Your task to perform on an android device: turn on improve location accuracy Image 0: 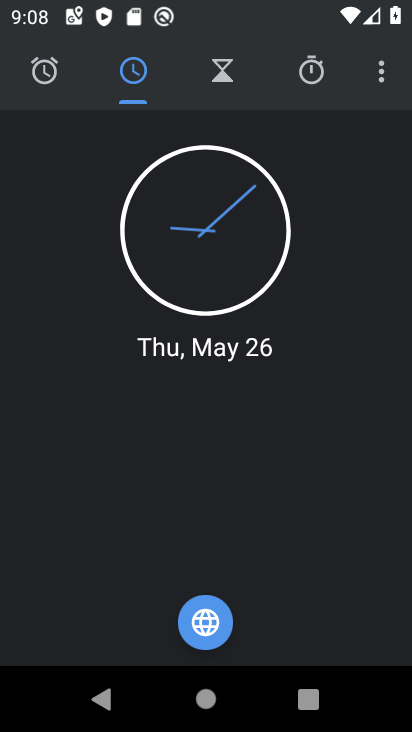
Step 0: drag from (286, 645) to (239, 104)
Your task to perform on an android device: turn on improve location accuracy Image 1: 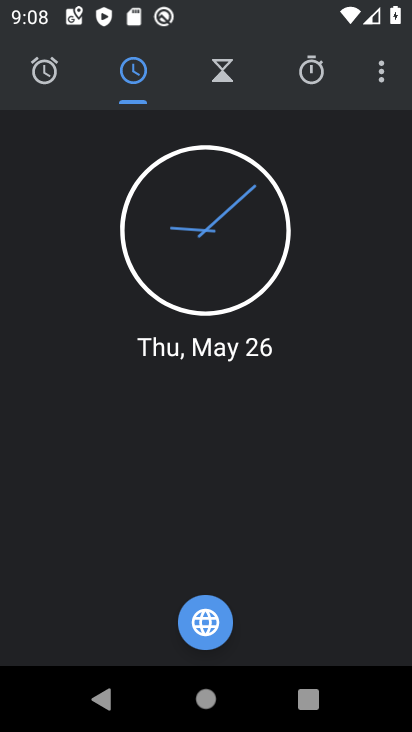
Step 1: press home button
Your task to perform on an android device: turn on improve location accuracy Image 2: 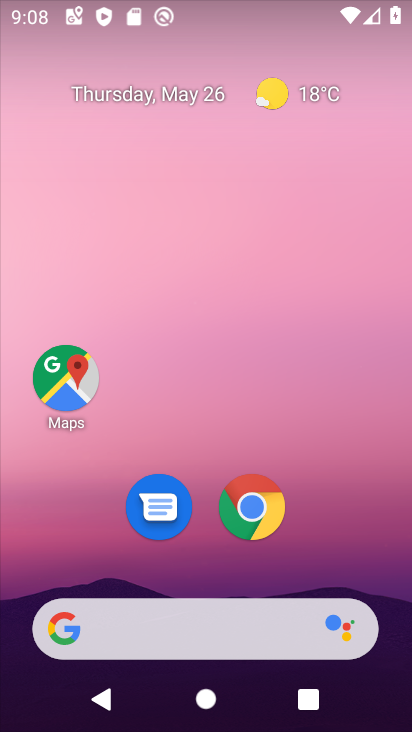
Step 2: drag from (248, 599) to (227, 170)
Your task to perform on an android device: turn on improve location accuracy Image 3: 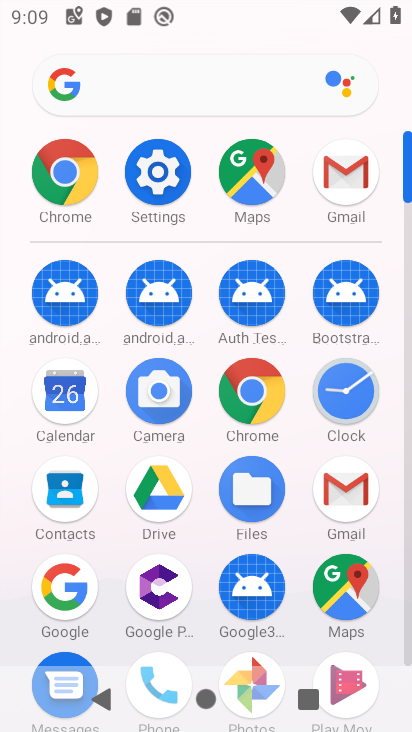
Step 3: click (154, 187)
Your task to perform on an android device: turn on improve location accuracy Image 4: 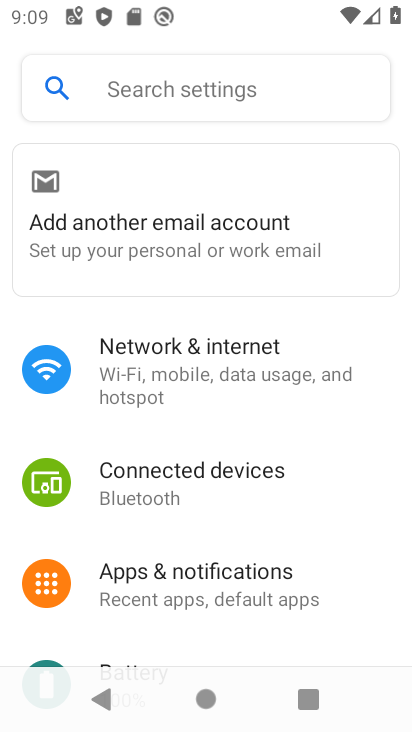
Step 4: click (217, 96)
Your task to perform on an android device: turn on improve location accuracy Image 5: 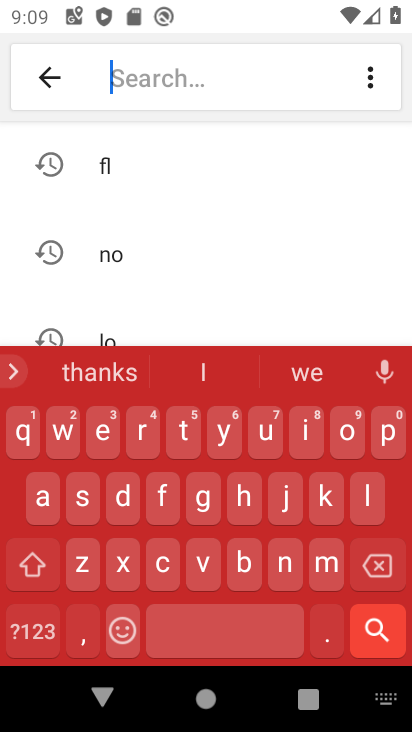
Step 5: click (370, 503)
Your task to perform on an android device: turn on improve location accuracy Image 6: 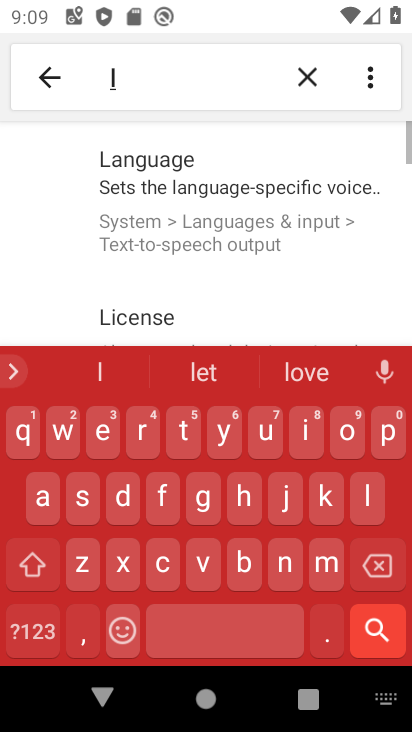
Step 6: click (343, 434)
Your task to perform on an android device: turn on improve location accuracy Image 7: 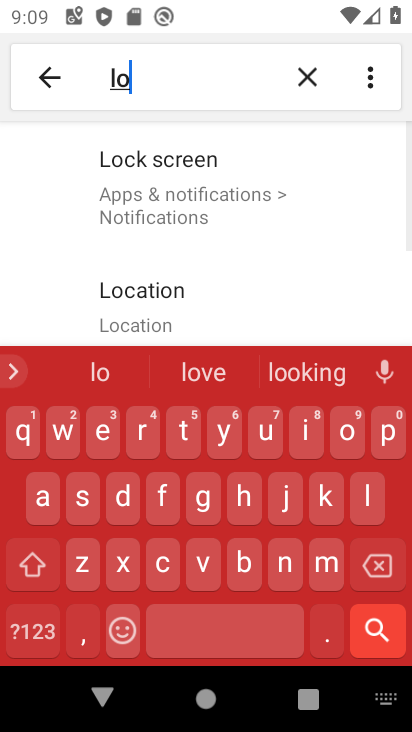
Step 7: click (156, 311)
Your task to perform on an android device: turn on improve location accuracy Image 8: 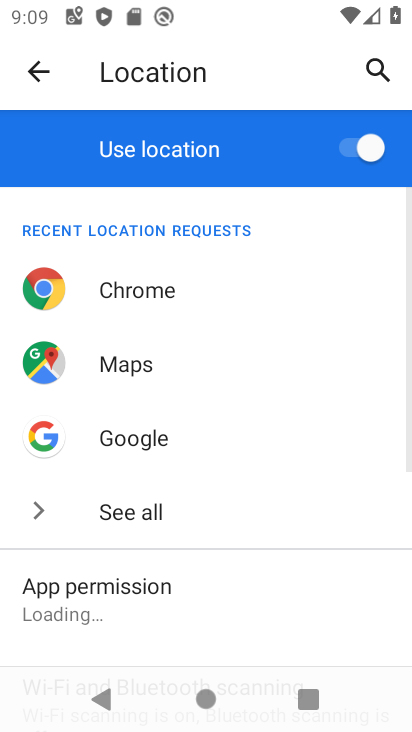
Step 8: drag from (233, 565) to (213, 270)
Your task to perform on an android device: turn on improve location accuracy Image 9: 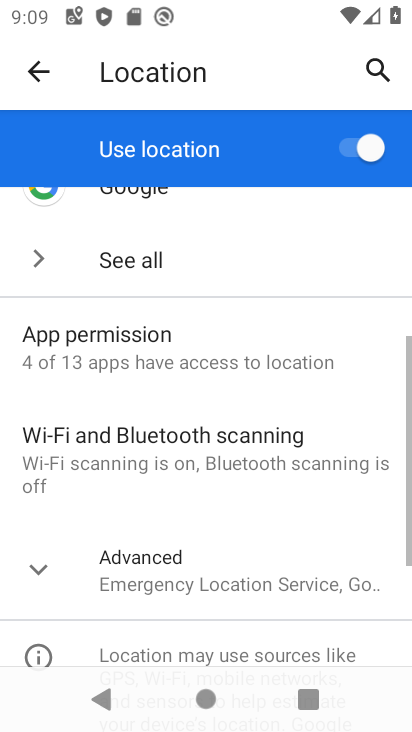
Step 9: click (129, 568)
Your task to perform on an android device: turn on improve location accuracy Image 10: 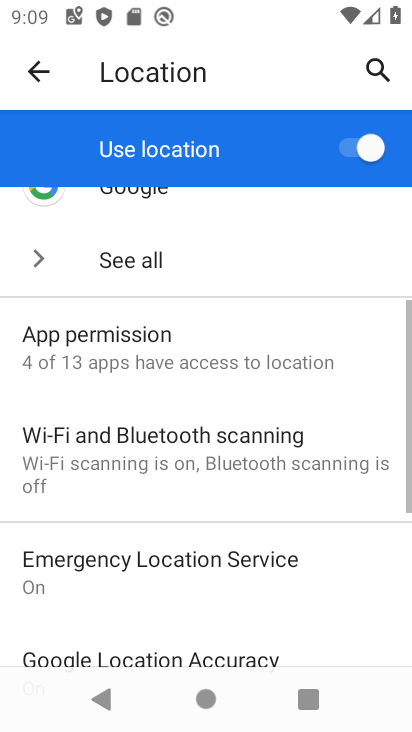
Step 10: drag from (229, 574) to (199, 457)
Your task to perform on an android device: turn on improve location accuracy Image 11: 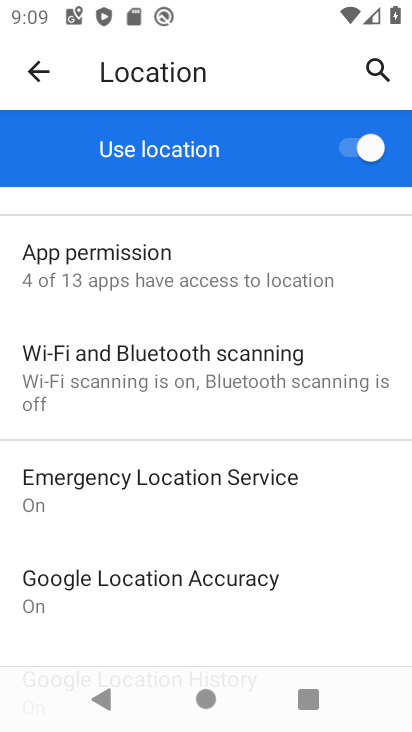
Step 11: click (224, 581)
Your task to perform on an android device: turn on improve location accuracy Image 12: 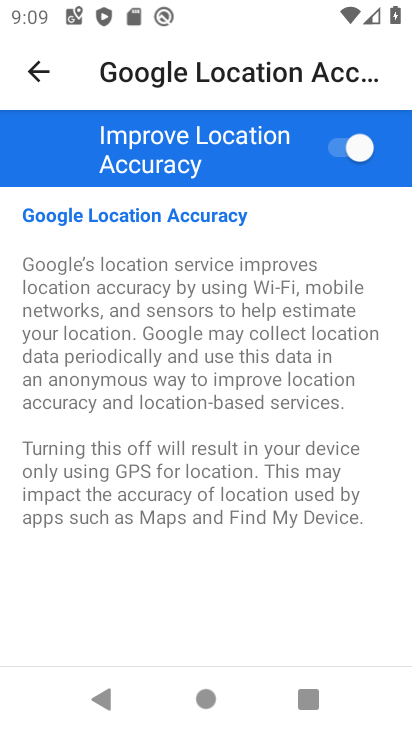
Step 12: task complete